Your task to perform on an android device: set the stopwatch Image 0: 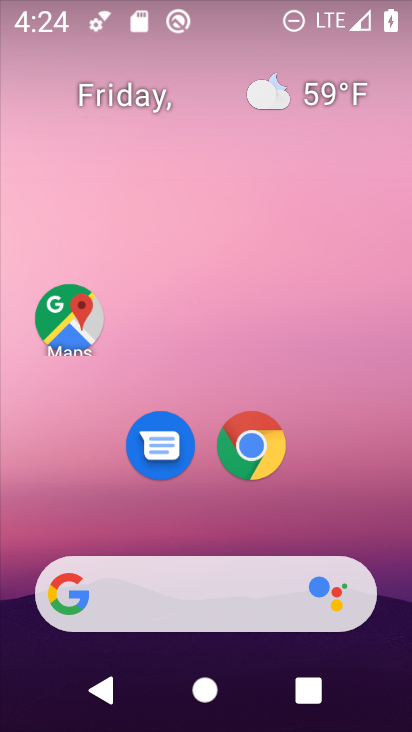
Step 0: drag from (388, 616) to (346, 176)
Your task to perform on an android device: set the stopwatch Image 1: 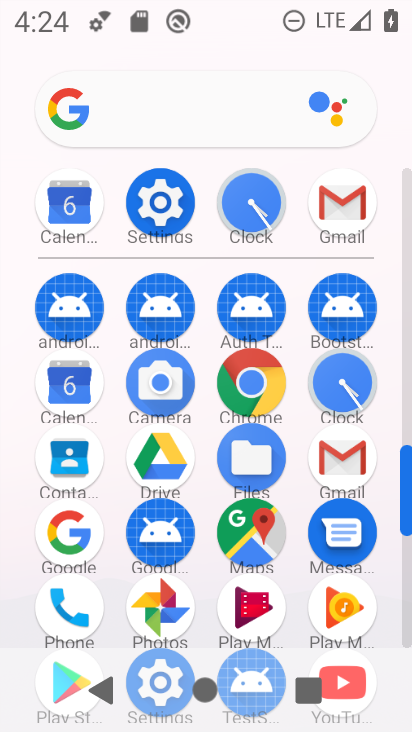
Step 1: click (407, 631)
Your task to perform on an android device: set the stopwatch Image 2: 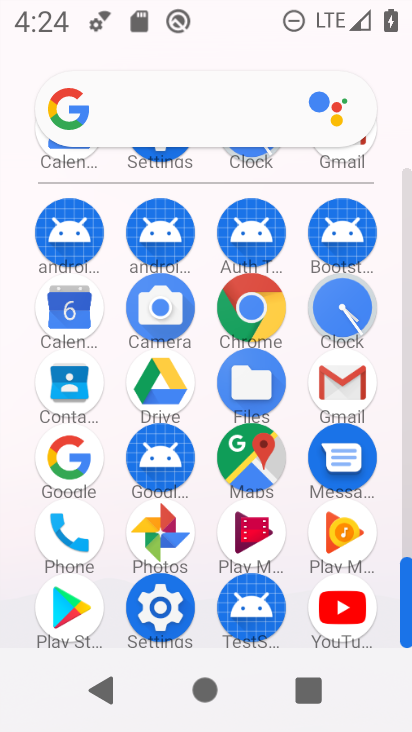
Step 2: click (330, 306)
Your task to perform on an android device: set the stopwatch Image 3: 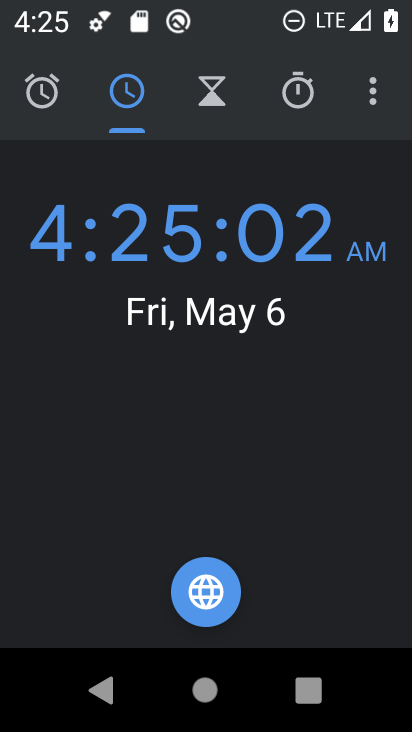
Step 3: click (296, 89)
Your task to perform on an android device: set the stopwatch Image 4: 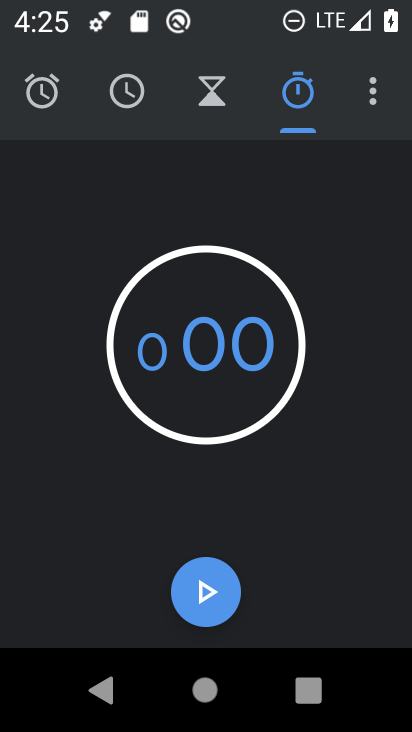
Step 4: task complete